Your task to perform on an android device: open a bookmark in the chrome app Image 0: 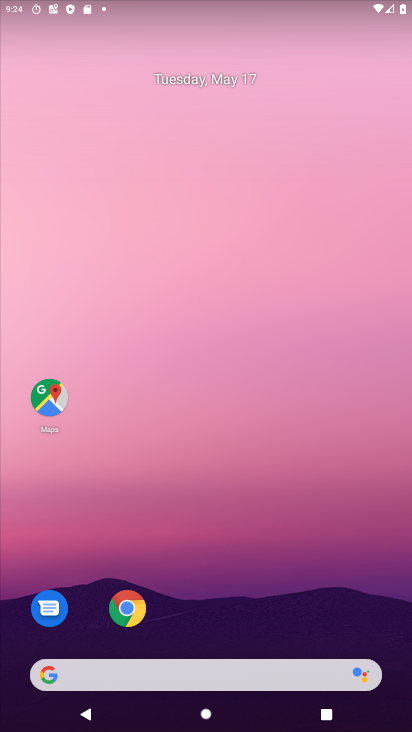
Step 0: drag from (381, 568) to (343, 113)
Your task to perform on an android device: open a bookmark in the chrome app Image 1: 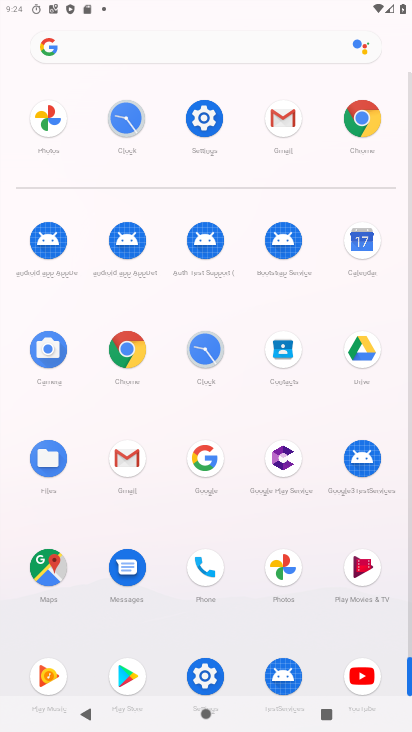
Step 1: click (134, 337)
Your task to perform on an android device: open a bookmark in the chrome app Image 2: 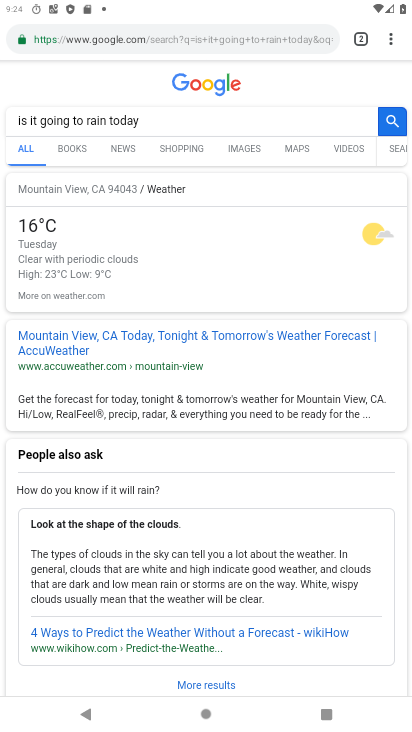
Step 2: task complete